Your task to perform on an android device: Show me popular videos on Youtube Image 0: 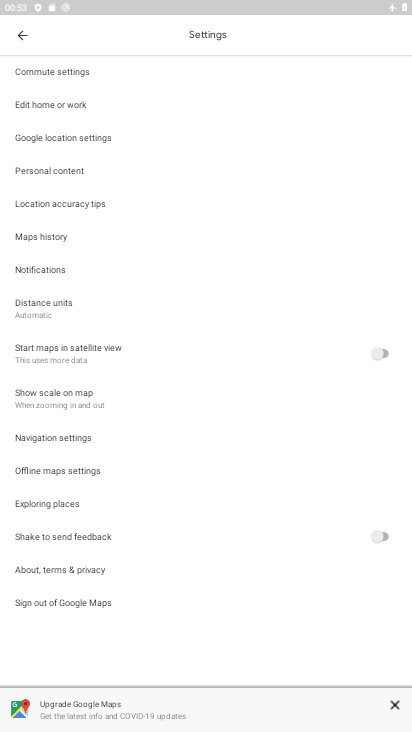
Step 0: press home button
Your task to perform on an android device: Show me popular videos on Youtube Image 1: 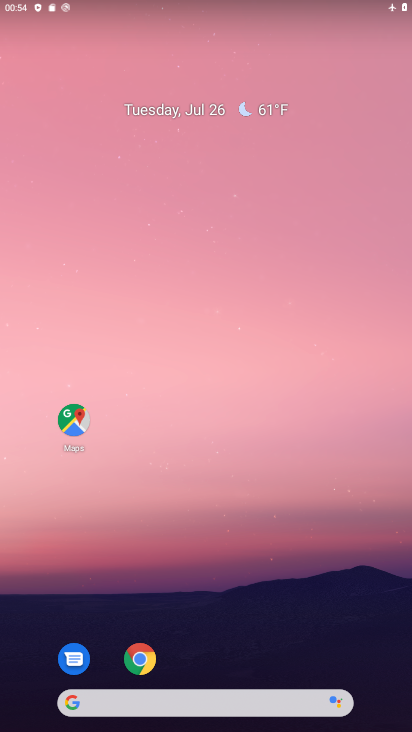
Step 1: drag from (231, 523) to (220, 1)
Your task to perform on an android device: Show me popular videos on Youtube Image 2: 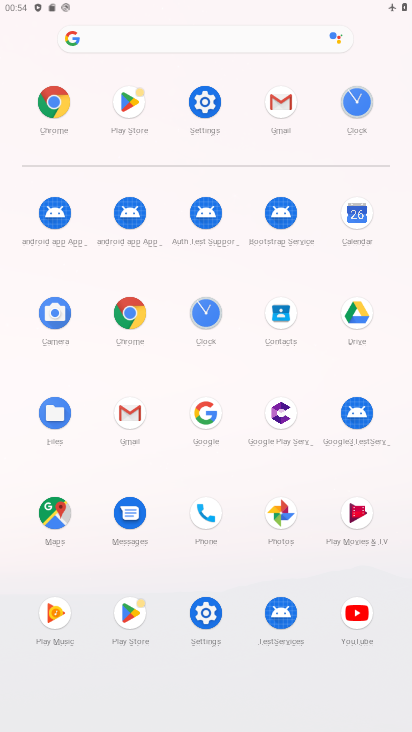
Step 2: click (348, 616)
Your task to perform on an android device: Show me popular videos on Youtube Image 3: 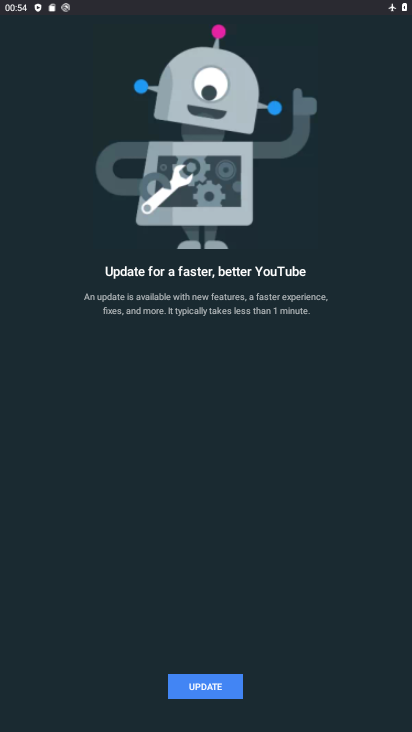
Step 3: click (209, 698)
Your task to perform on an android device: Show me popular videos on Youtube Image 4: 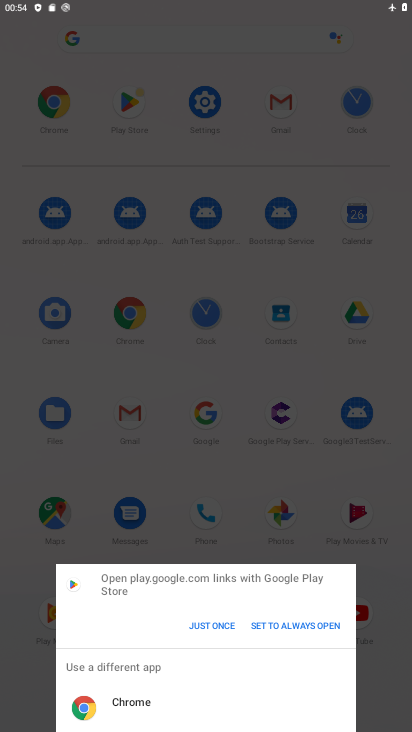
Step 4: click (212, 622)
Your task to perform on an android device: Show me popular videos on Youtube Image 5: 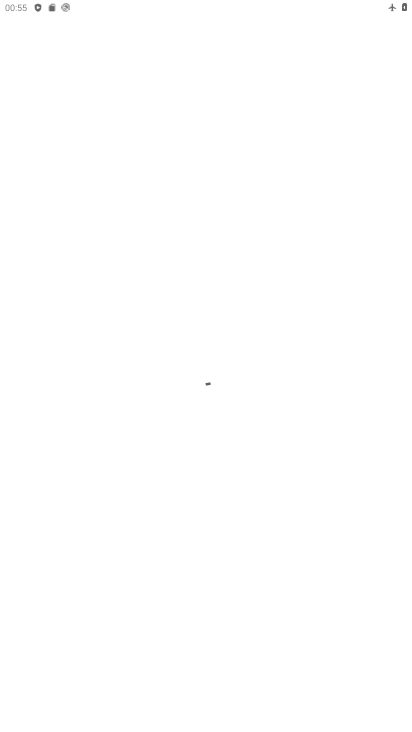
Step 5: task complete